Your task to perform on an android device: toggle location history Image 0: 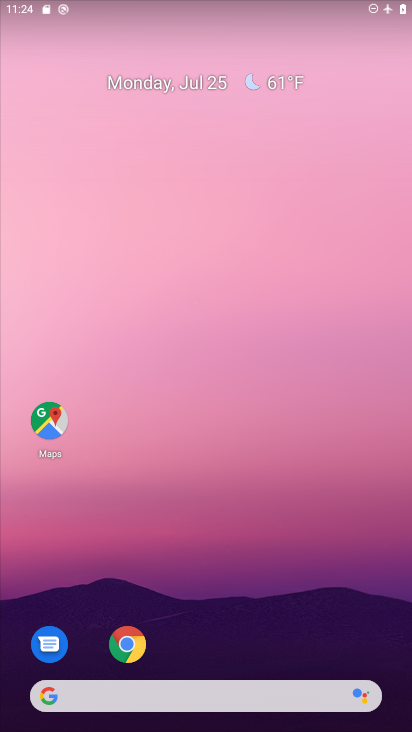
Step 0: drag from (241, 596) to (214, 53)
Your task to perform on an android device: toggle location history Image 1: 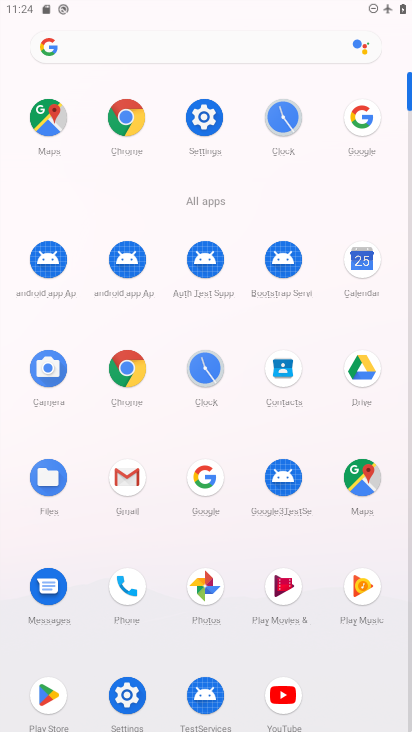
Step 1: click (203, 106)
Your task to perform on an android device: toggle location history Image 2: 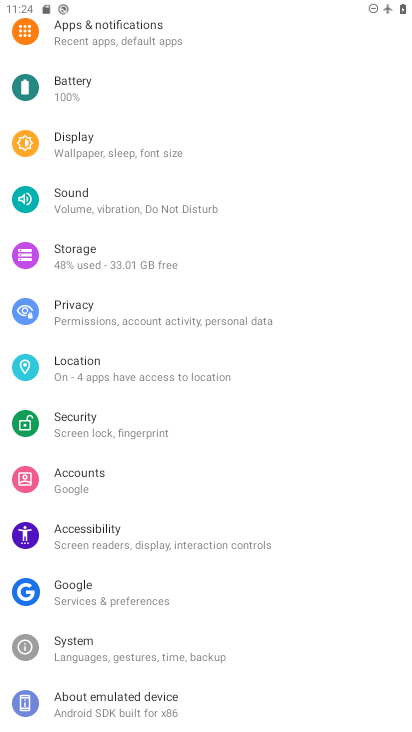
Step 2: click (103, 363)
Your task to perform on an android device: toggle location history Image 3: 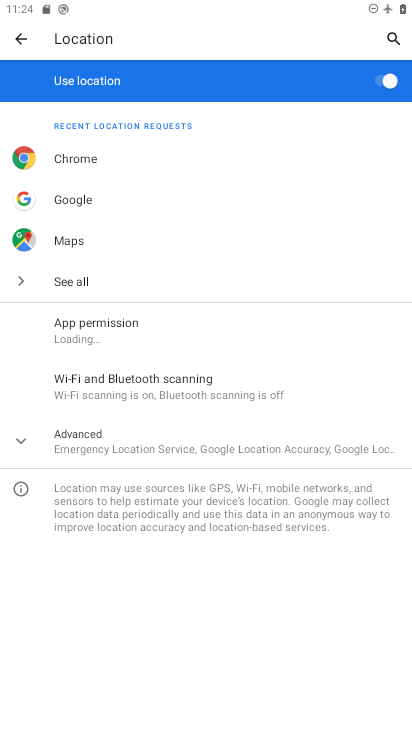
Step 3: click (117, 433)
Your task to perform on an android device: toggle location history Image 4: 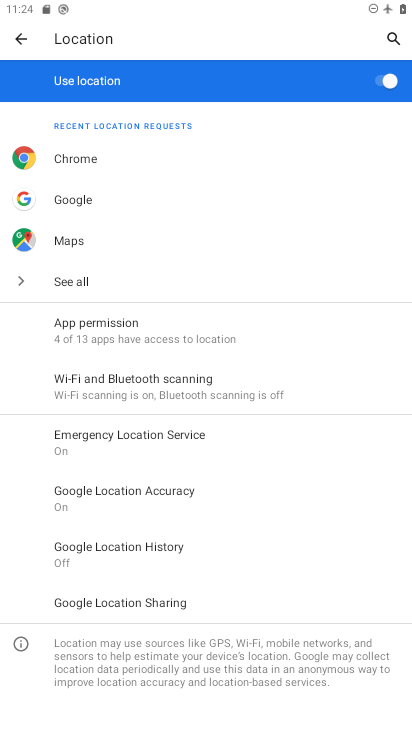
Step 4: click (156, 537)
Your task to perform on an android device: toggle location history Image 5: 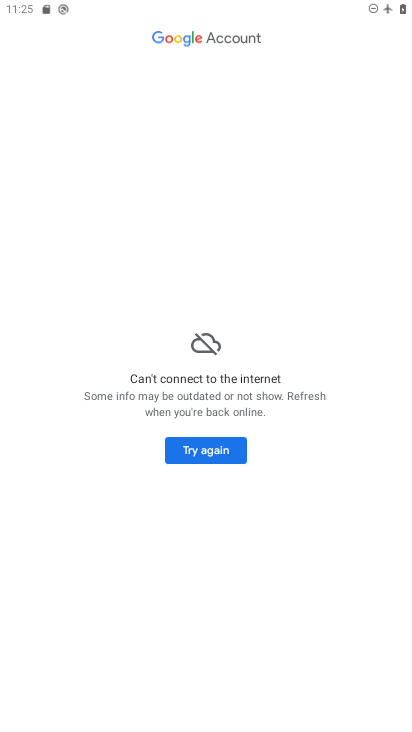
Step 5: task complete